Your task to perform on an android device: Open sound settings Image 0: 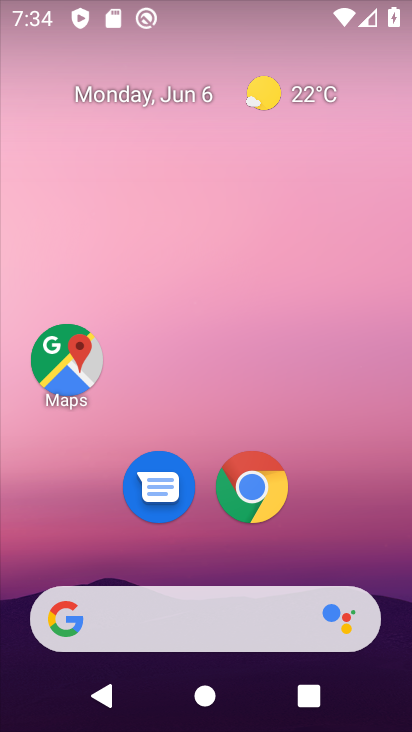
Step 0: drag from (392, 534) to (347, 187)
Your task to perform on an android device: Open sound settings Image 1: 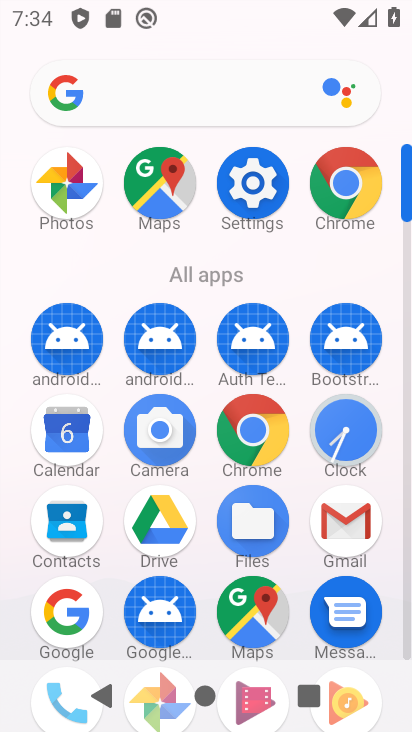
Step 1: click (237, 207)
Your task to perform on an android device: Open sound settings Image 2: 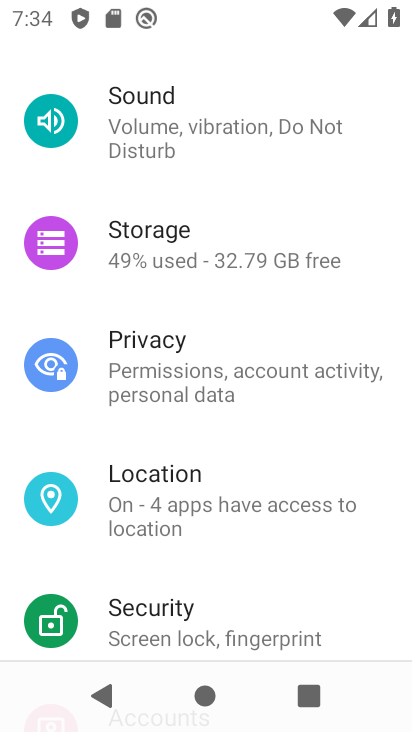
Step 2: click (197, 105)
Your task to perform on an android device: Open sound settings Image 3: 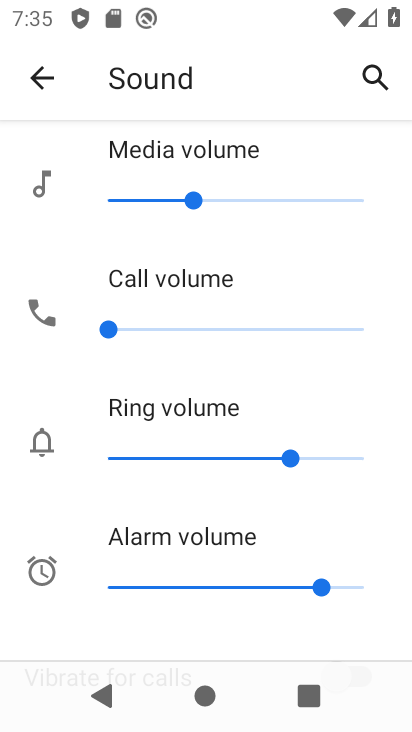
Step 3: task complete